Your task to perform on an android device: Show me the alarms in the clock app Image 0: 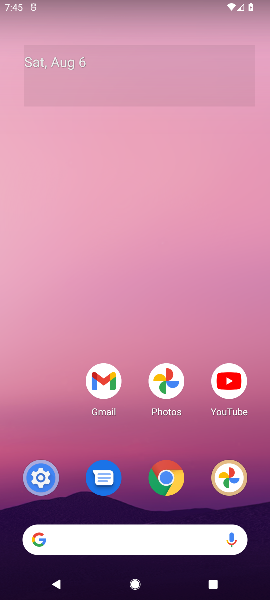
Step 0: press home button
Your task to perform on an android device: Show me the alarms in the clock app Image 1: 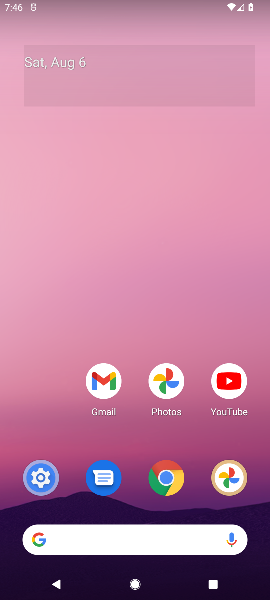
Step 1: drag from (57, 441) to (42, 70)
Your task to perform on an android device: Show me the alarms in the clock app Image 2: 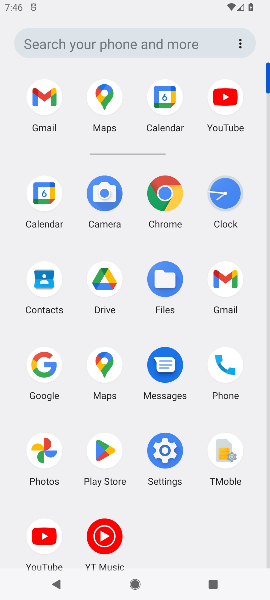
Step 2: click (230, 191)
Your task to perform on an android device: Show me the alarms in the clock app Image 3: 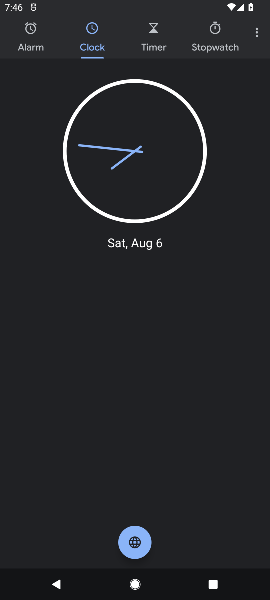
Step 3: click (28, 26)
Your task to perform on an android device: Show me the alarms in the clock app Image 4: 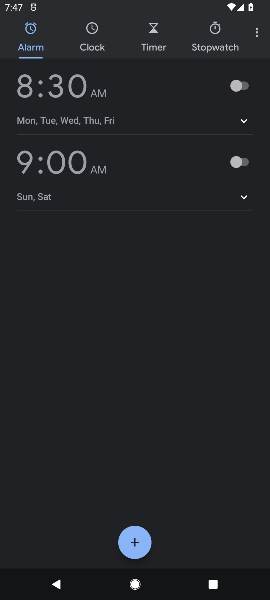
Step 4: task complete